Your task to perform on an android device: Open Google Chrome and open the bookmarks view Image 0: 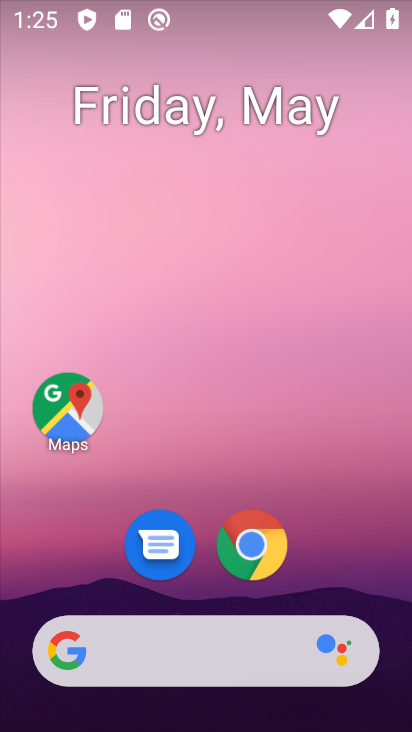
Step 0: press back button
Your task to perform on an android device: Open Google Chrome and open the bookmarks view Image 1: 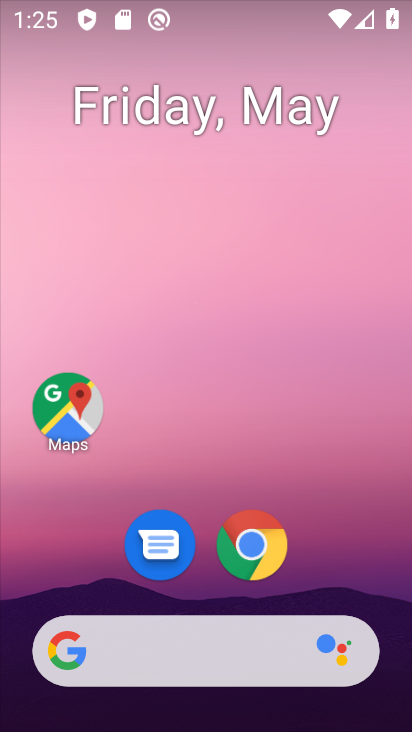
Step 1: click (146, 56)
Your task to perform on an android device: Open Google Chrome and open the bookmarks view Image 2: 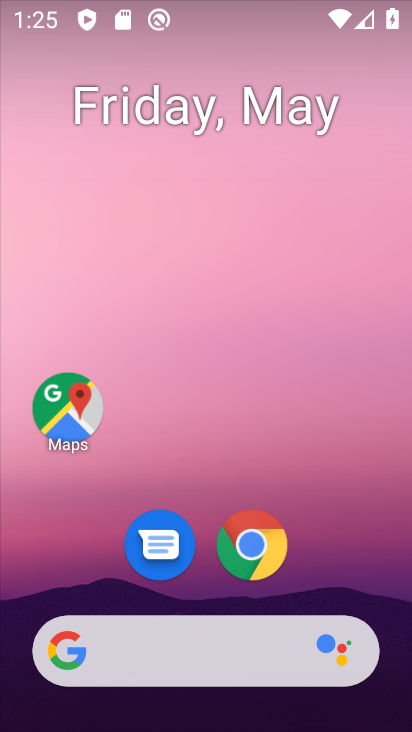
Step 2: drag from (348, 565) to (83, 29)
Your task to perform on an android device: Open Google Chrome and open the bookmarks view Image 3: 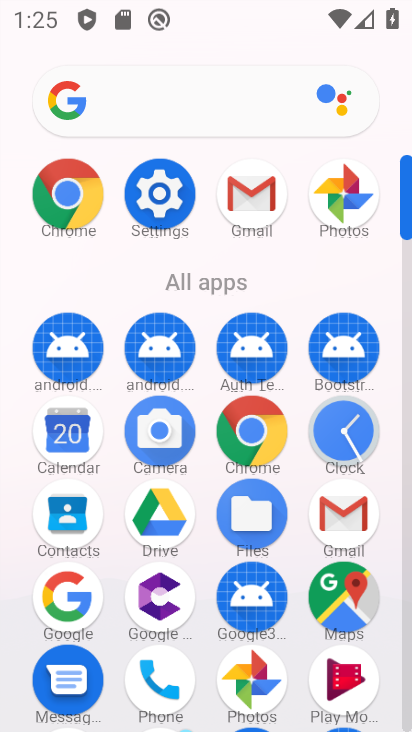
Step 3: click (262, 439)
Your task to perform on an android device: Open Google Chrome and open the bookmarks view Image 4: 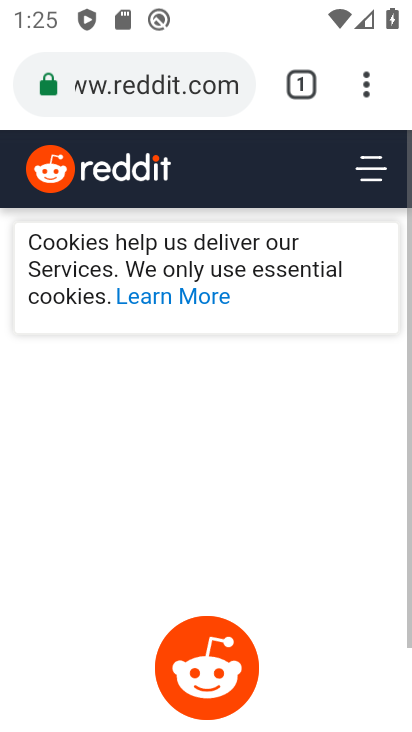
Step 4: click (362, 79)
Your task to perform on an android device: Open Google Chrome and open the bookmarks view Image 5: 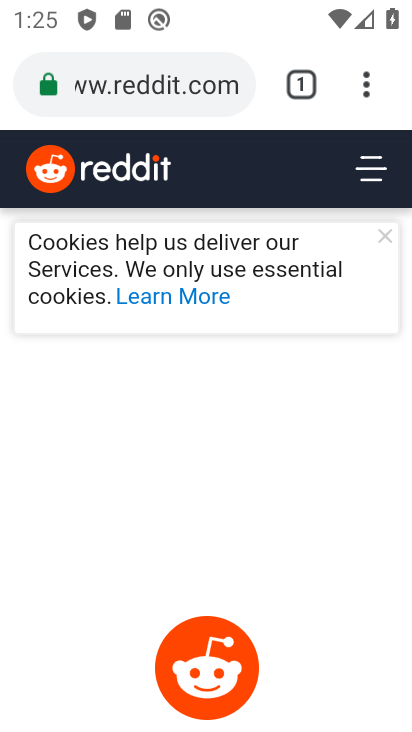
Step 5: click (349, 93)
Your task to perform on an android device: Open Google Chrome and open the bookmarks view Image 6: 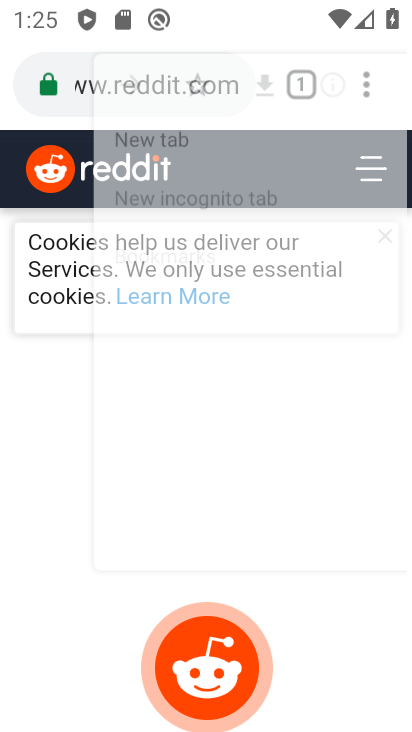
Step 6: drag from (365, 82) to (344, 140)
Your task to perform on an android device: Open Google Chrome and open the bookmarks view Image 7: 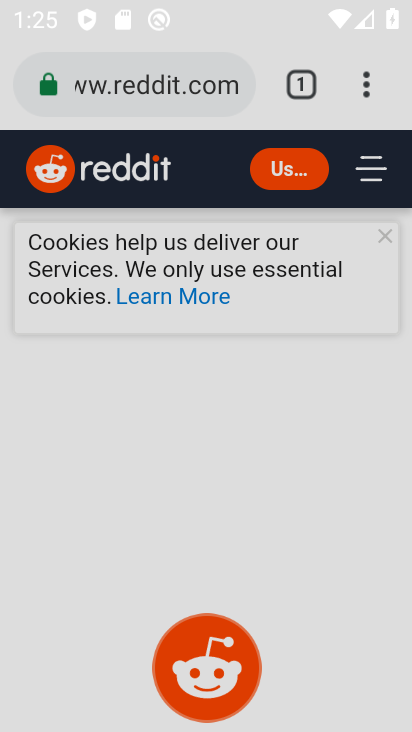
Step 7: click (214, 460)
Your task to perform on an android device: Open Google Chrome and open the bookmarks view Image 8: 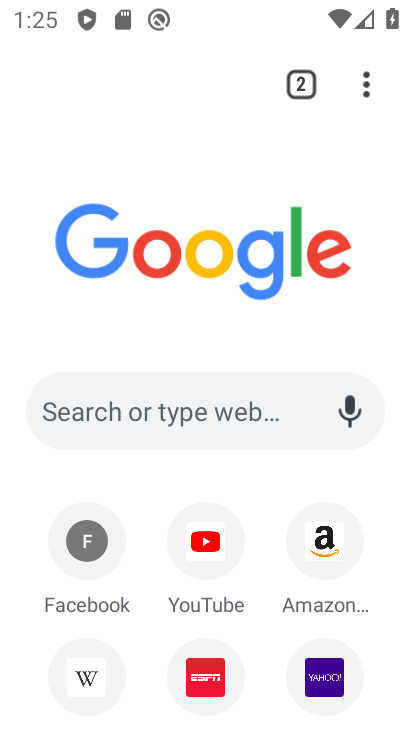
Step 8: click (367, 86)
Your task to perform on an android device: Open Google Chrome and open the bookmarks view Image 9: 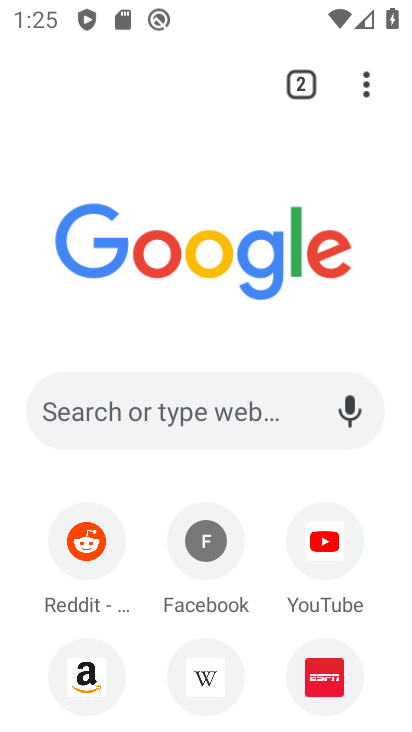
Step 9: click (352, 84)
Your task to perform on an android device: Open Google Chrome and open the bookmarks view Image 10: 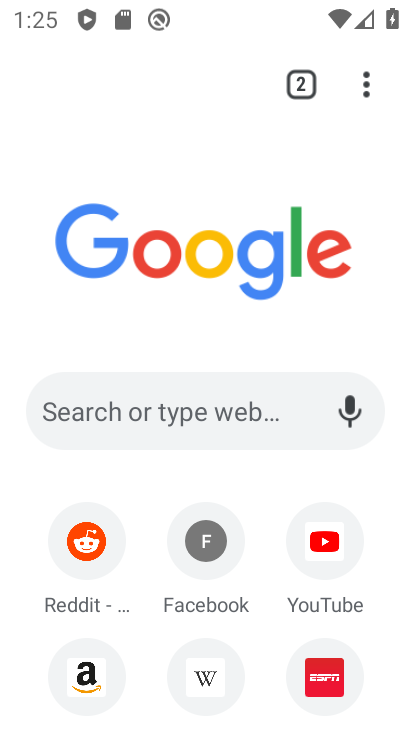
Step 10: click (373, 79)
Your task to perform on an android device: Open Google Chrome and open the bookmarks view Image 11: 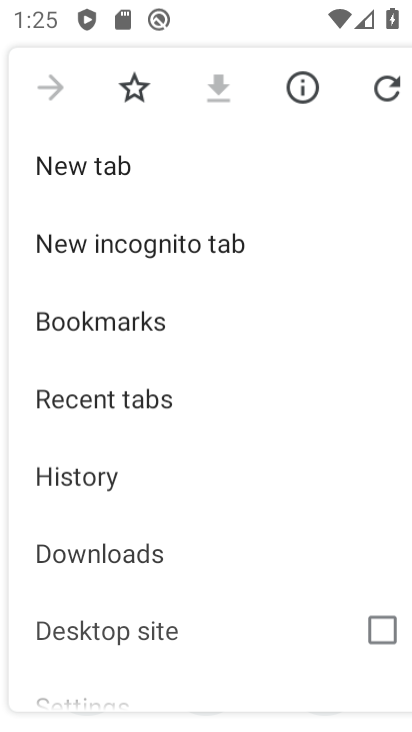
Step 11: click (372, 79)
Your task to perform on an android device: Open Google Chrome and open the bookmarks view Image 12: 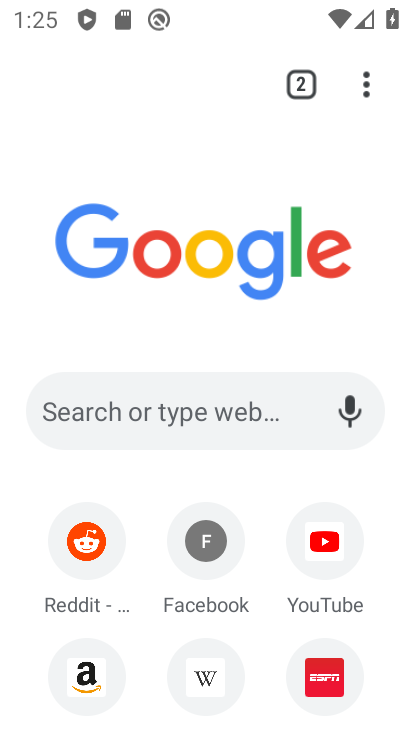
Step 12: drag from (362, 87) to (98, 313)
Your task to perform on an android device: Open Google Chrome and open the bookmarks view Image 13: 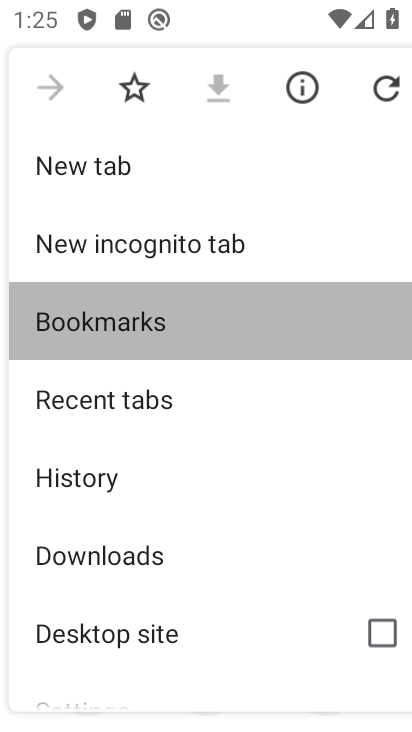
Step 13: click (98, 313)
Your task to perform on an android device: Open Google Chrome and open the bookmarks view Image 14: 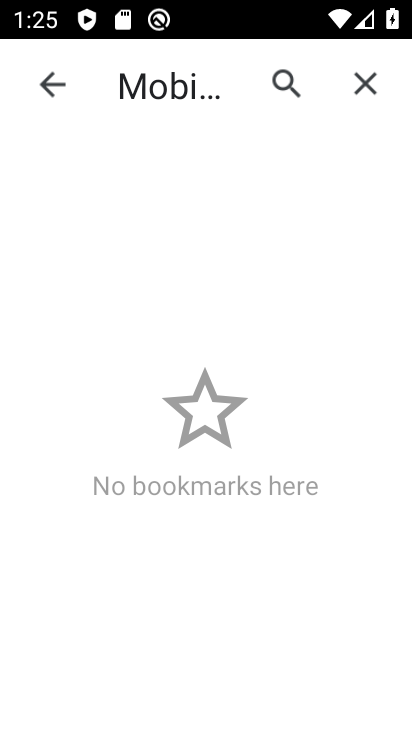
Step 14: task complete